Your task to perform on an android device: Do I have any events today? Image 0: 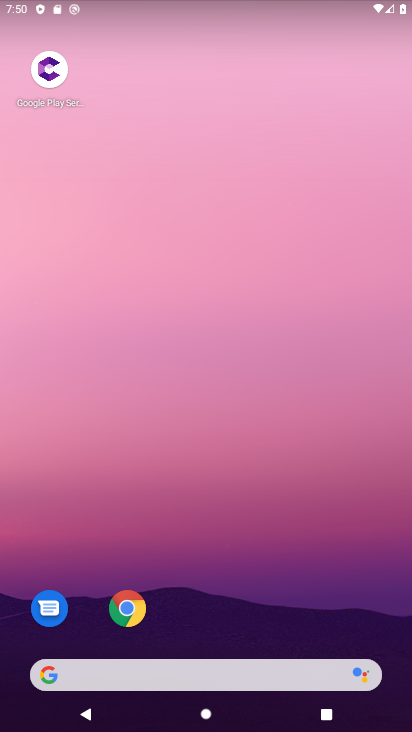
Step 0: drag from (228, 613) to (189, 0)
Your task to perform on an android device: Do I have any events today? Image 1: 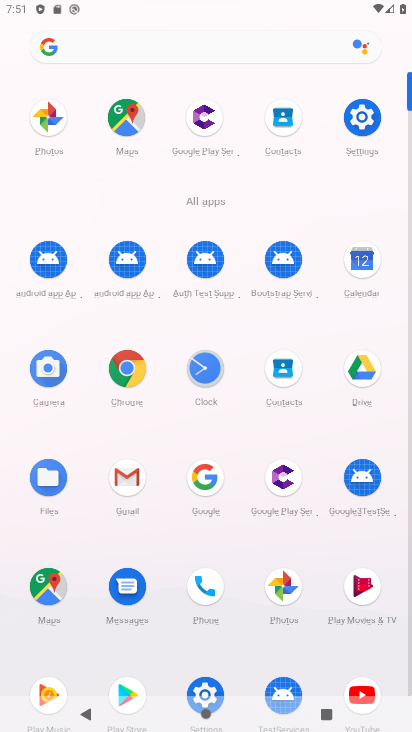
Step 1: click (361, 272)
Your task to perform on an android device: Do I have any events today? Image 2: 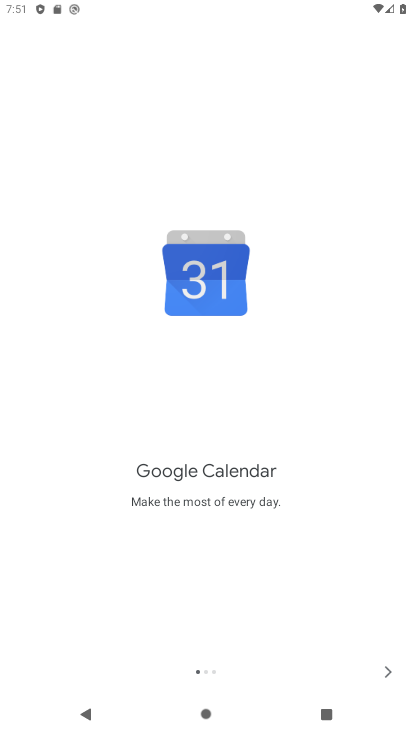
Step 2: drag from (184, 619) to (2, 510)
Your task to perform on an android device: Do I have any events today? Image 3: 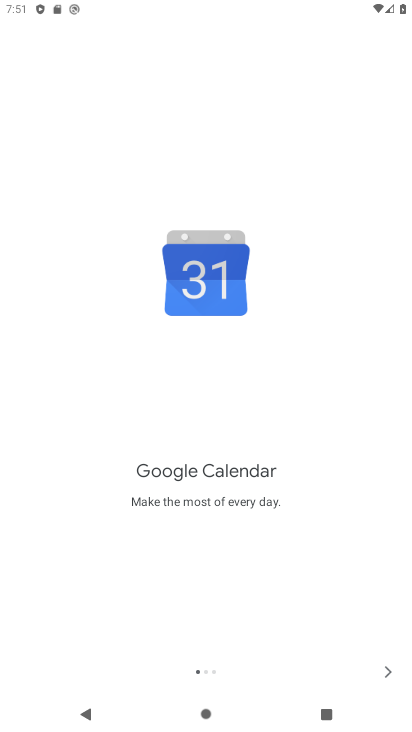
Step 3: click (392, 672)
Your task to perform on an android device: Do I have any events today? Image 4: 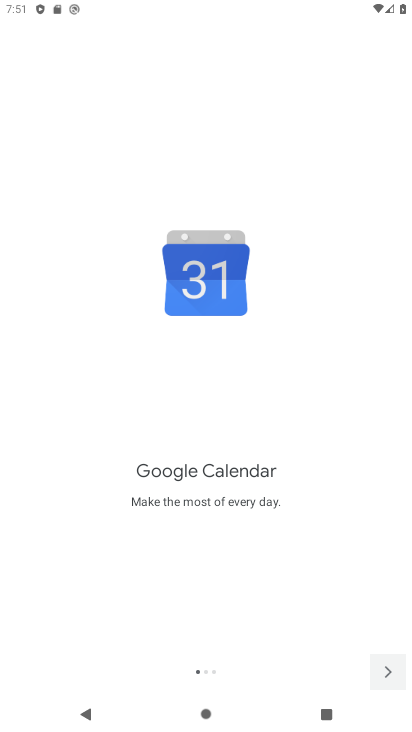
Step 4: click (392, 672)
Your task to perform on an android device: Do I have any events today? Image 5: 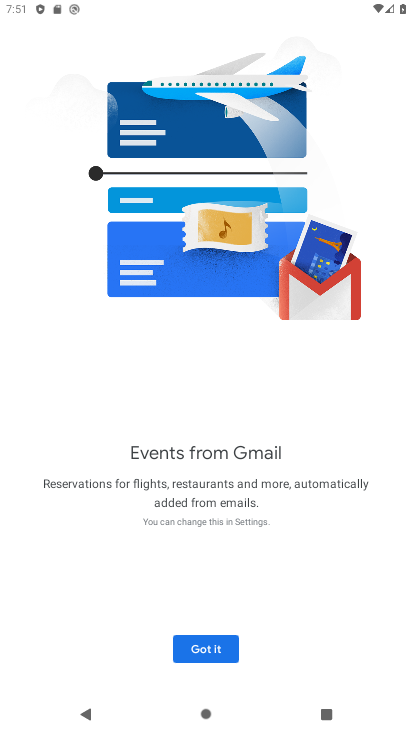
Step 5: click (216, 638)
Your task to perform on an android device: Do I have any events today? Image 6: 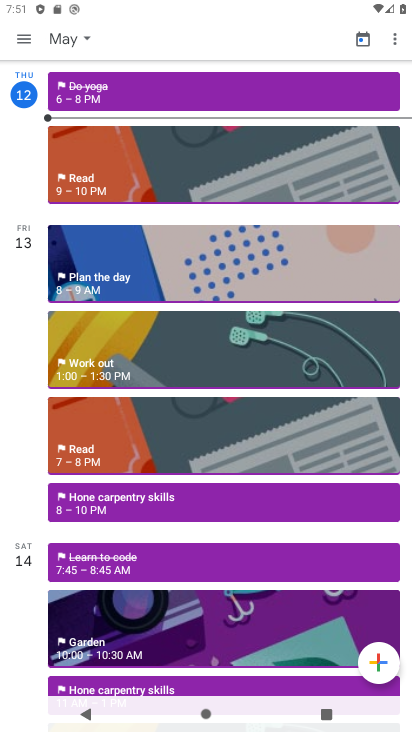
Step 6: click (32, 36)
Your task to perform on an android device: Do I have any events today? Image 7: 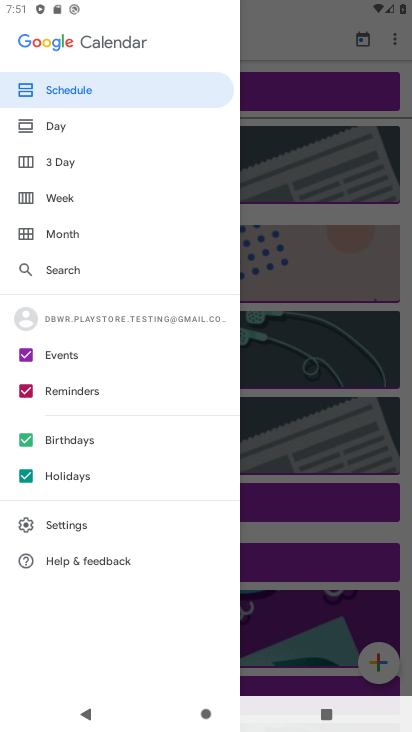
Step 7: click (36, 85)
Your task to perform on an android device: Do I have any events today? Image 8: 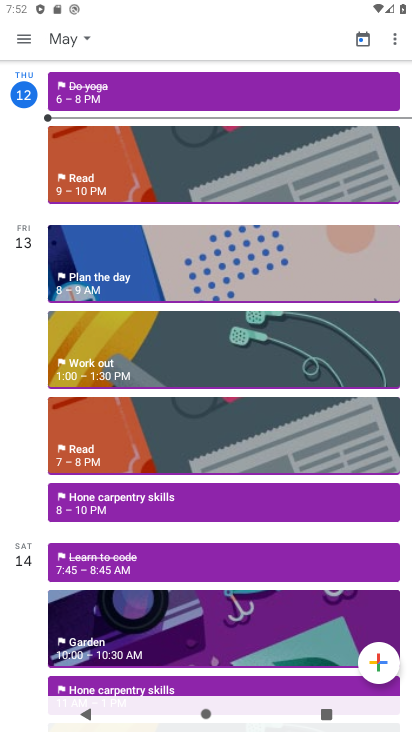
Step 8: task complete